Your task to perform on an android device: find photos in the google photos app Image 0: 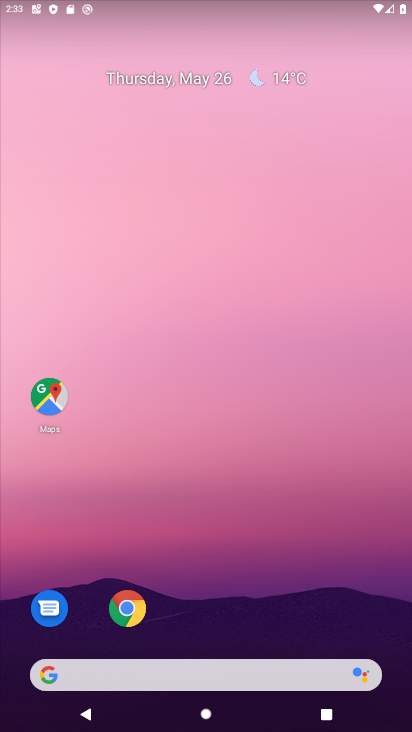
Step 0: drag from (267, 442) to (301, 41)
Your task to perform on an android device: find photos in the google photos app Image 1: 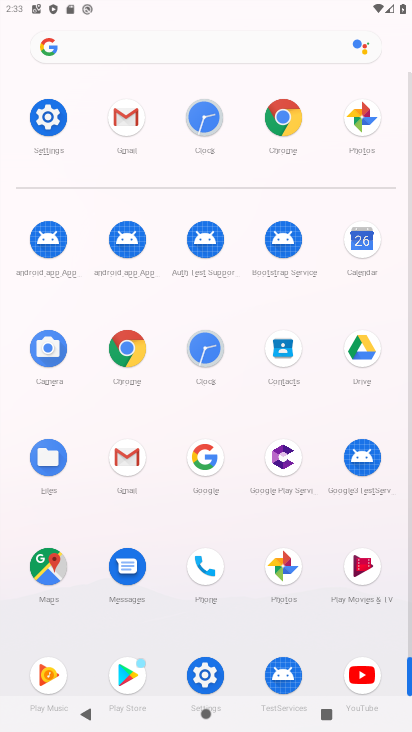
Step 1: click (358, 123)
Your task to perform on an android device: find photos in the google photos app Image 2: 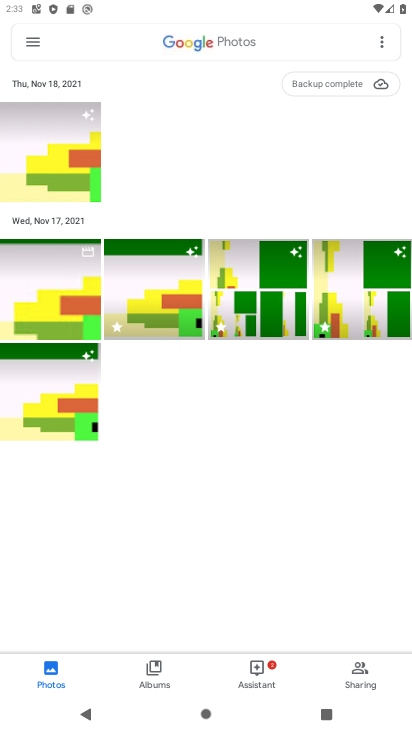
Step 2: click (45, 157)
Your task to perform on an android device: find photos in the google photos app Image 3: 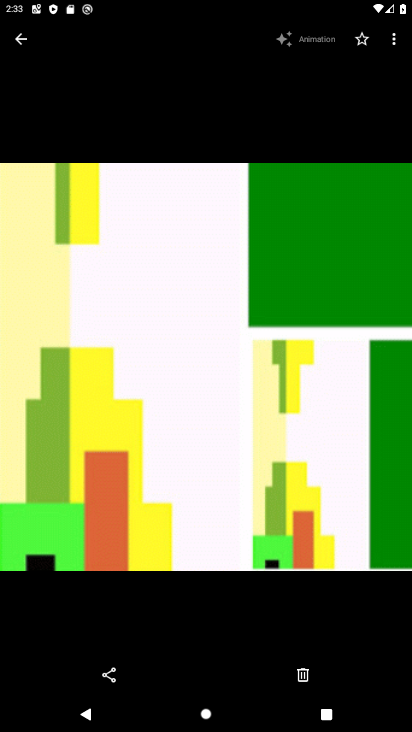
Step 3: task complete